Your task to perform on an android device: Open calendar and show me the third week of next month Image 0: 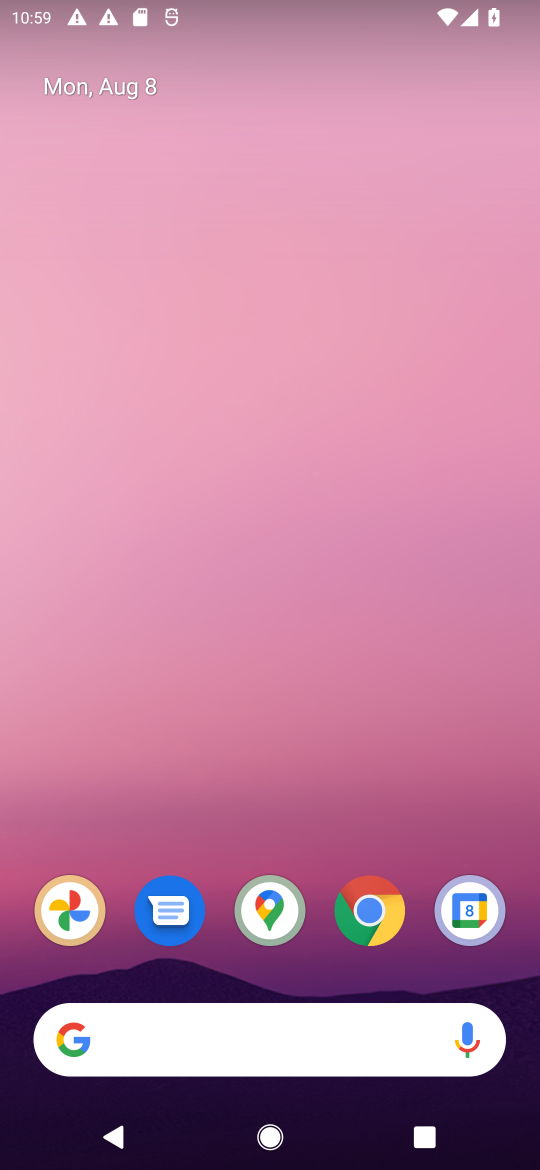
Step 0: drag from (269, 973) to (528, 75)
Your task to perform on an android device: Open calendar and show me the third week of next month Image 1: 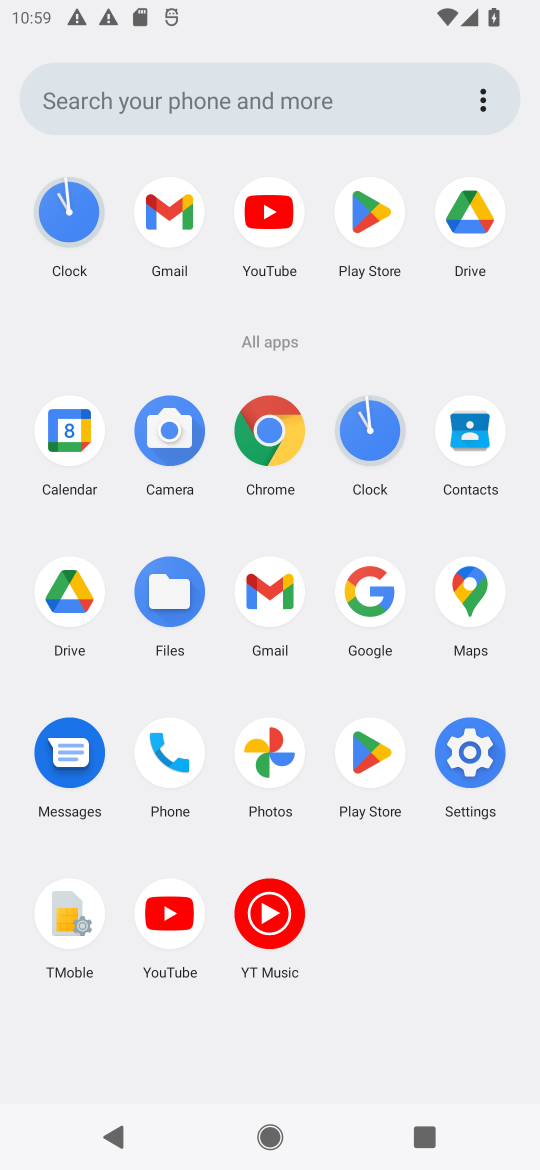
Step 1: click (72, 408)
Your task to perform on an android device: Open calendar and show me the third week of next month Image 2: 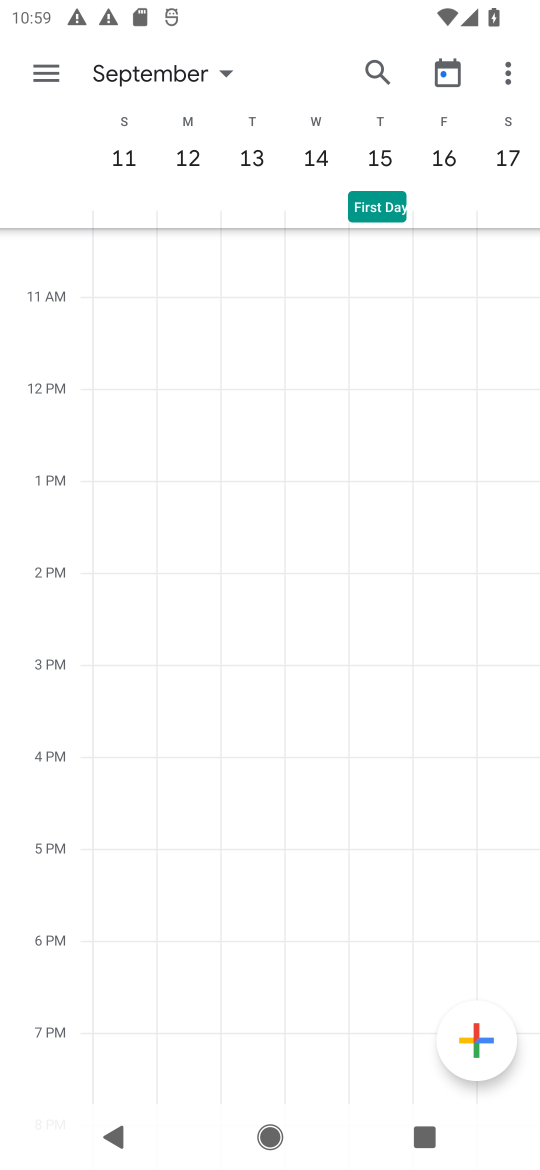
Step 2: task complete